Your task to perform on an android device: Open wifi settings Image 0: 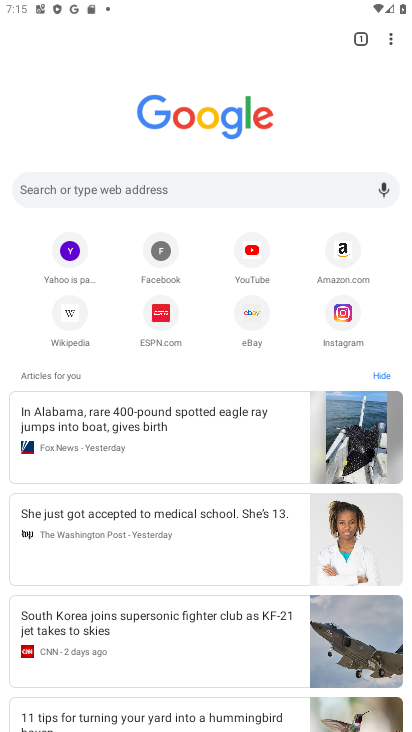
Step 0: press home button
Your task to perform on an android device: Open wifi settings Image 1: 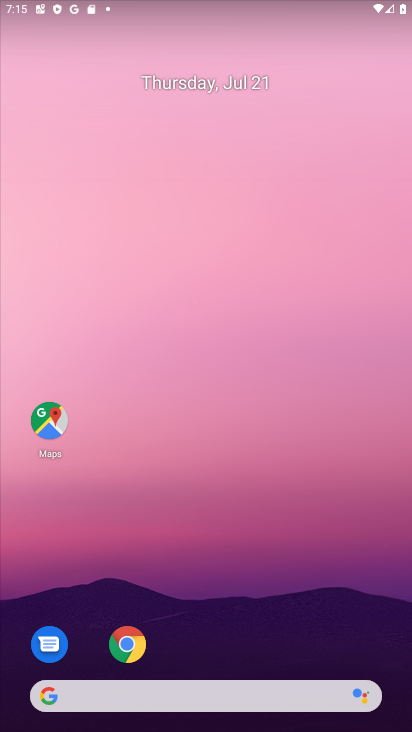
Step 1: drag from (297, 556) to (286, 156)
Your task to perform on an android device: Open wifi settings Image 2: 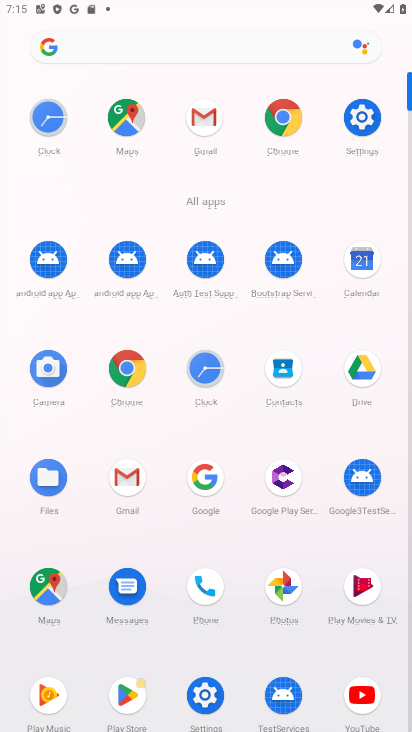
Step 2: click (363, 116)
Your task to perform on an android device: Open wifi settings Image 3: 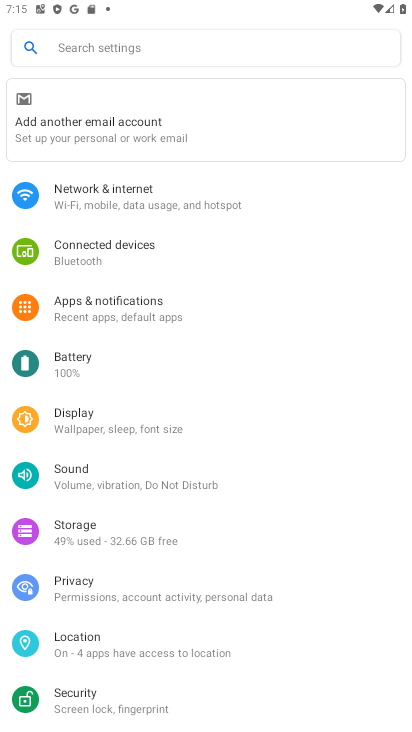
Step 3: click (77, 198)
Your task to perform on an android device: Open wifi settings Image 4: 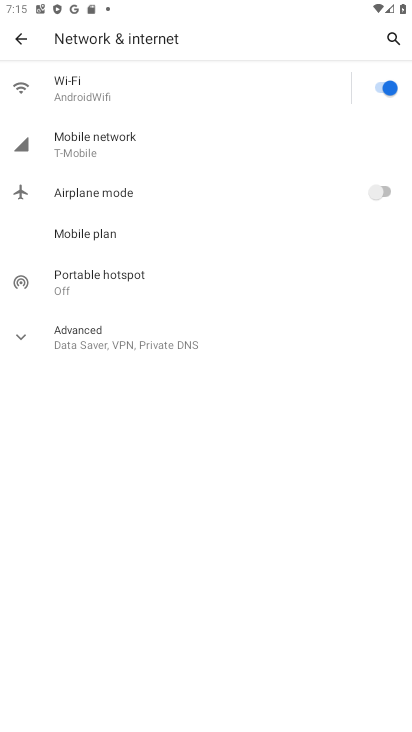
Step 4: click (96, 93)
Your task to perform on an android device: Open wifi settings Image 5: 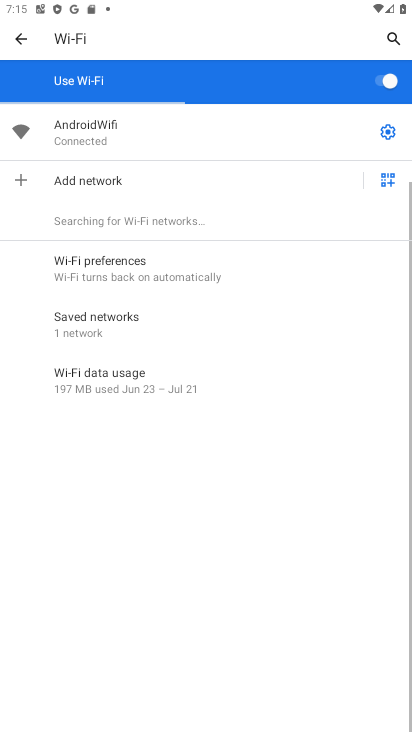
Step 5: task complete